Your task to perform on an android device: Open Maps and search for coffee Image 0: 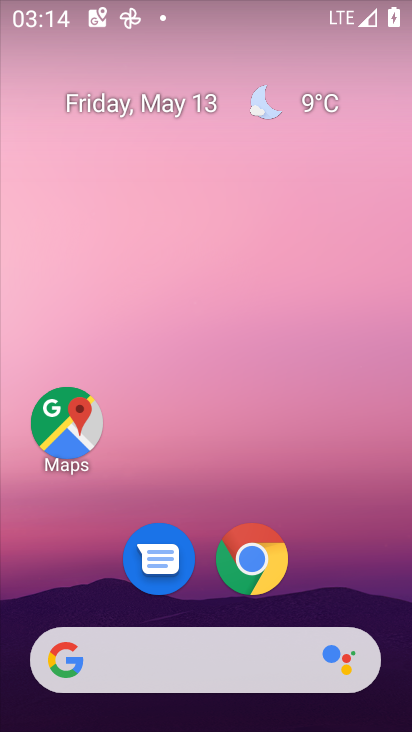
Step 0: click (70, 427)
Your task to perform on an android device: Open Maps and search for coffee Image 1: 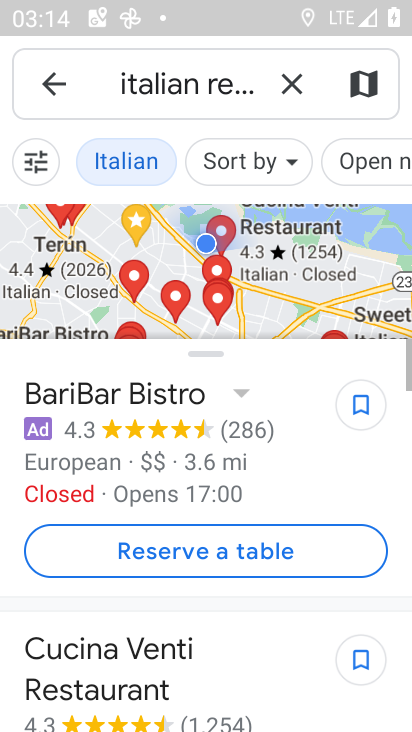
Step 1: click (287, 82)
Your task to perform on an android device: Open Maps and search for coffee Image 2: 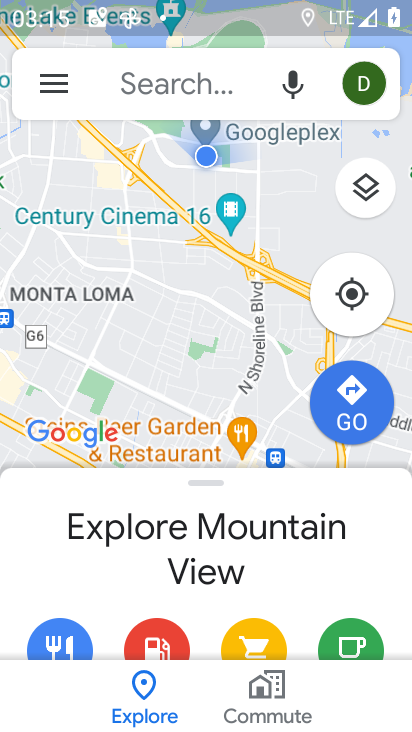
Step 2: type "coffee"
Your task to perform on an android device: Open Maps and search for coffee Image 3: 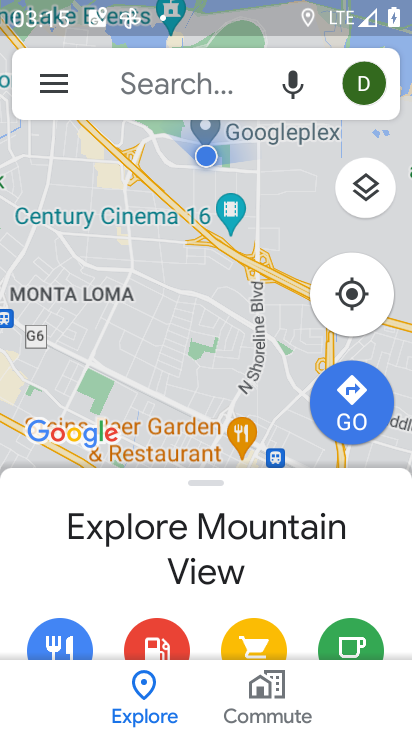
Step 3: click (113, 83)
Your task to perform on an android device: Open Maps and search for coffee Image 4: 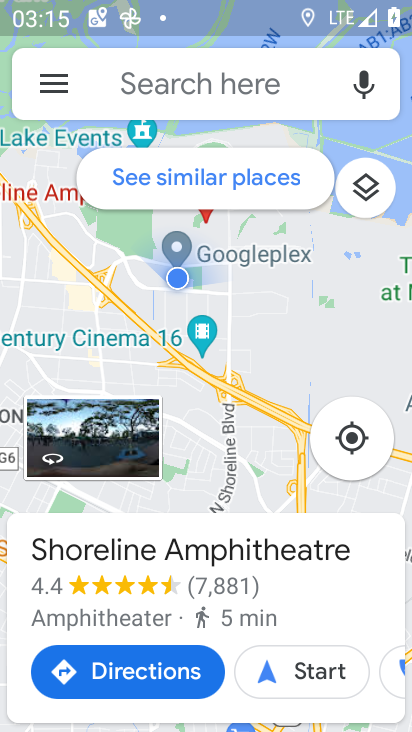
Step 4: click (116, 85)
Your task to perform on an android device: Open Maps and search for coffee Image 5: 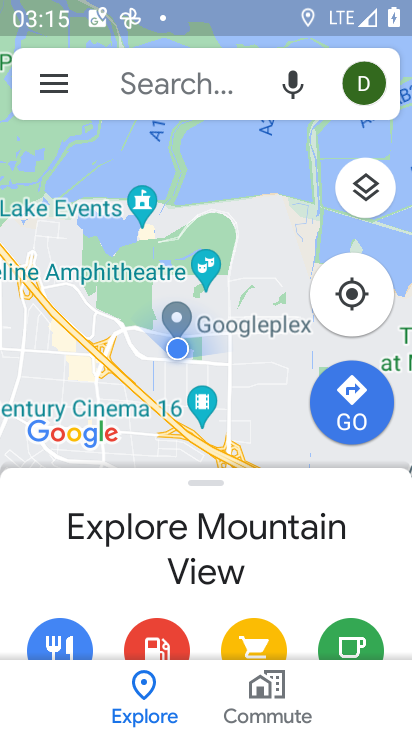
Step 5: click (155, 73)
Your task to perform on an android device: Open Maps and search for coffee Image 6: 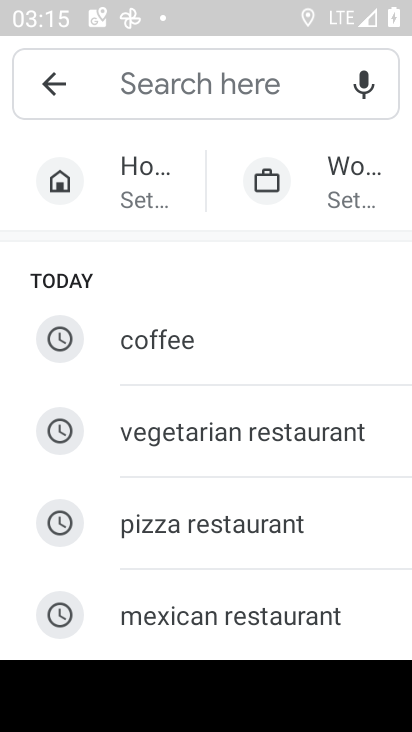
Step 6: type "coffee"
Your task to perform on an android device: Open Maps and search for coffee Image 7: 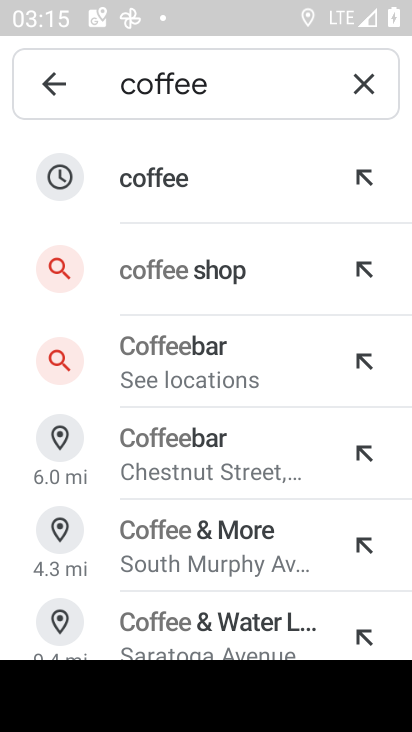
Step 7: click (158, 166)
Your task to perform on an android device: Open Maps and search for coffee Image 8: 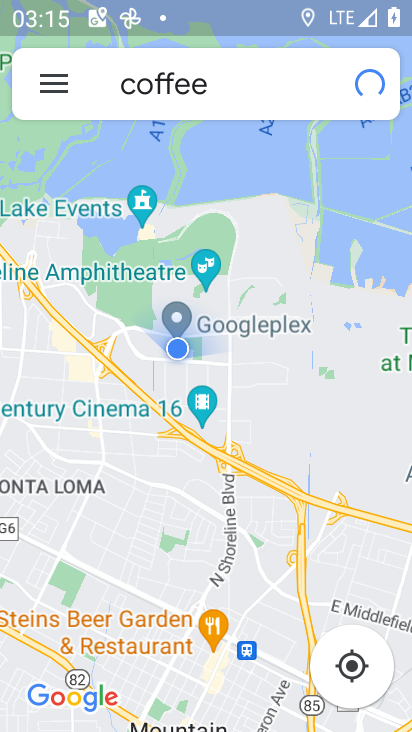
Step 8: task complete